Your task to perform on an android device: Open internet settings Image 0: 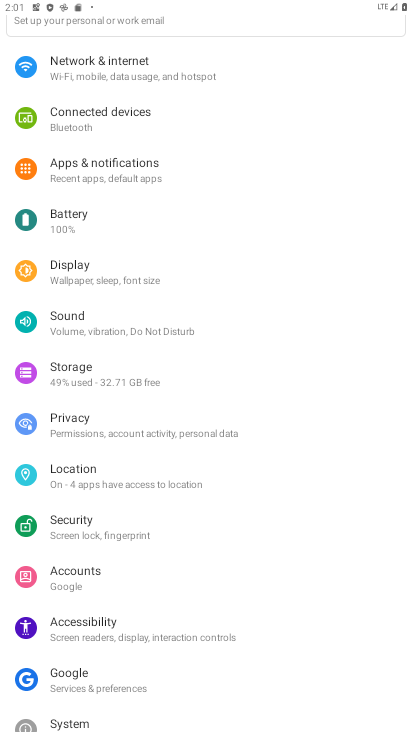
Step 0: press home button
Your task to perform on an android device: Open internet settings Image 1: 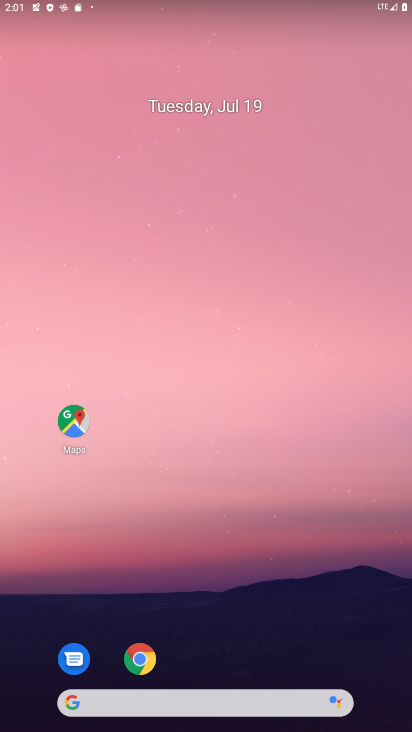
Step 1: drag from (226, 617) to (217, 99)
Your task to perform on an android device: Open internet settings Image 2: 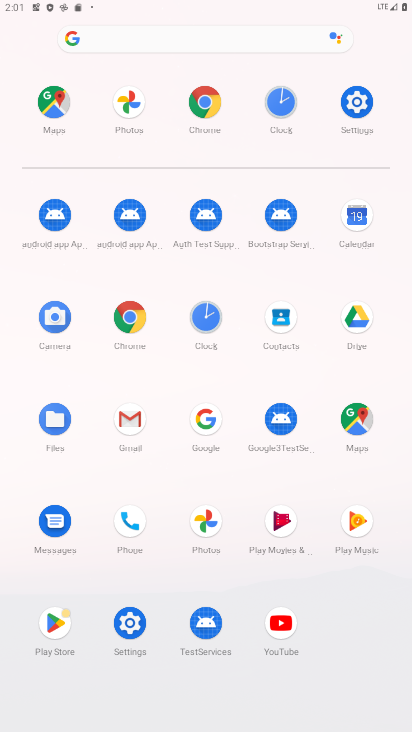
Step 2: click (351, 102)
Your task to perform on an android device: Open internet settings Image 3: 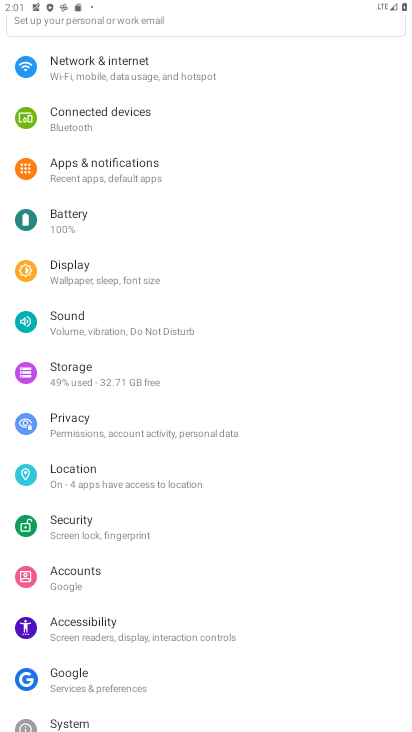
Step 3: click (113, 71)
Your task to perform on an android device: Open internet settings Image 4: 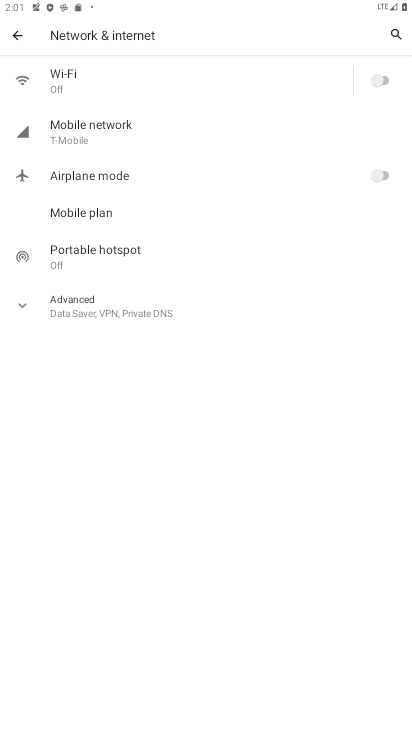
Step 4: task complete